Your task to perform on an android device: What is the news today? Image 0: 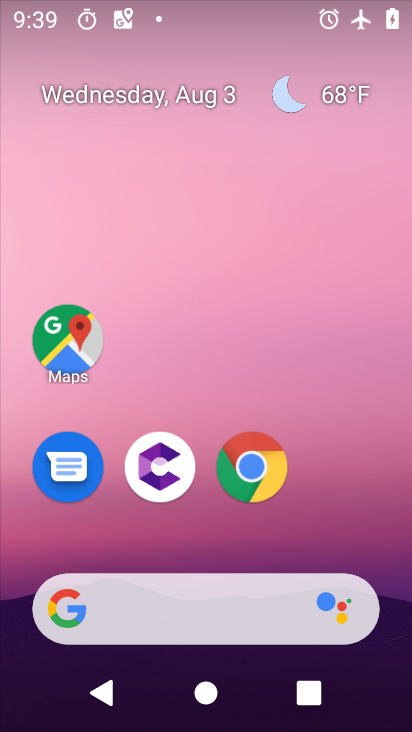
Step 0: drag from (384, 472) to (325, 13)
Your task to perform on an android device: What is the news today? Image 1: 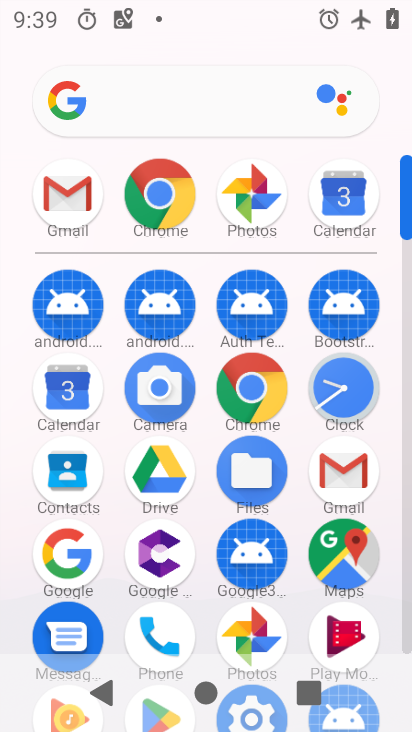
Step 1: click (255, 384)
Your task to perform on an android device: What is the news today? Image 2: 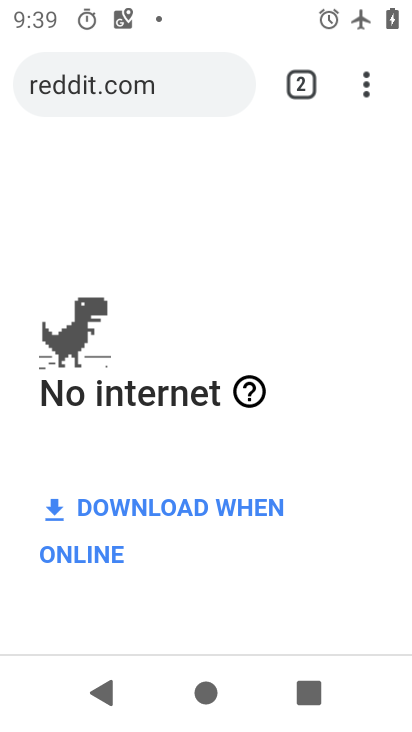
Step 2: click (178, 71)
Your task to perform on an android device: What is the news today? Image 3: 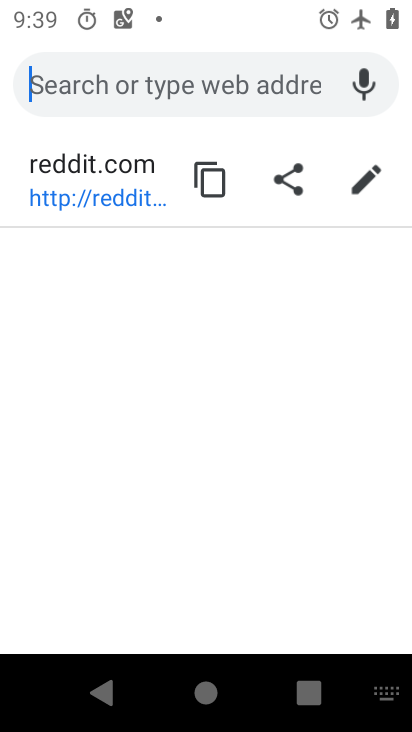
Step 3: type "news"
Your task to perform on an android device: What is the news today? Image 4: 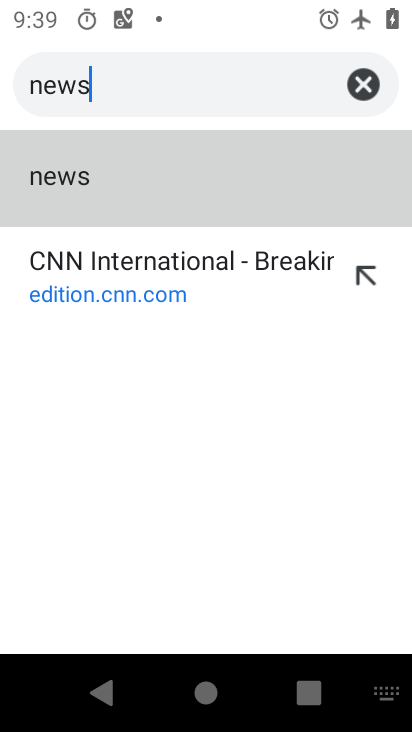
Step 4: click (89, 202)
Your task to perform on an android device: What is the news today? Image 5: 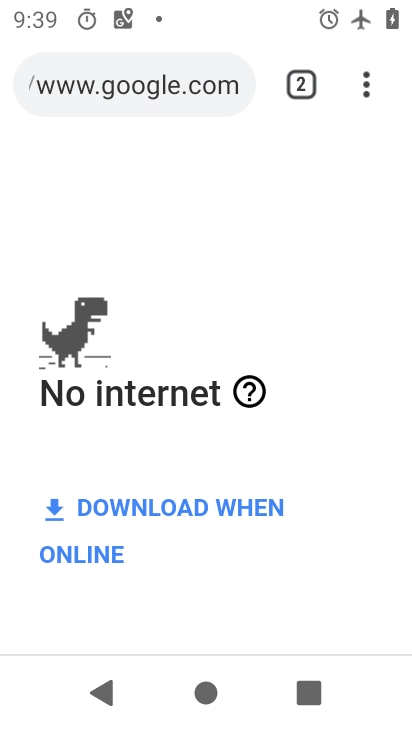
Step 5: task complete